Your task to perform on an android device: toggle notification dots Image 0: 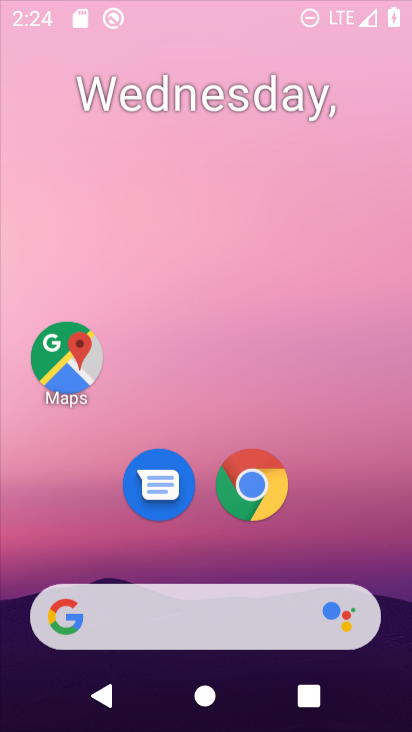
Step 0: drag from (394, 605) to (242, 92)
Your task to perform on an android device: toggle notification dots Image 1: 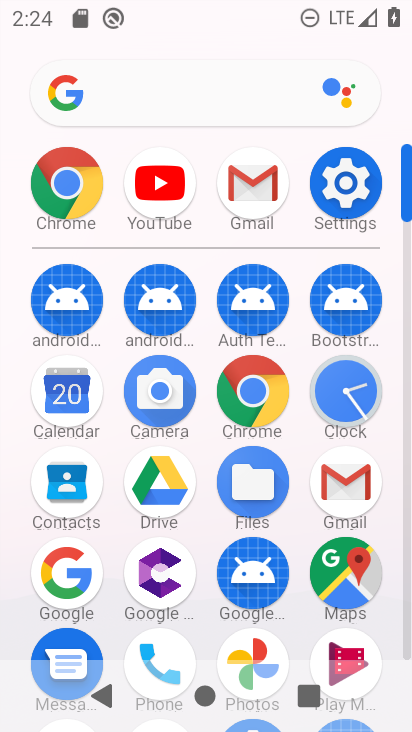
Step 1: click (320, 188)
Your task to perform on an android device: toggle notification dots Image 2: 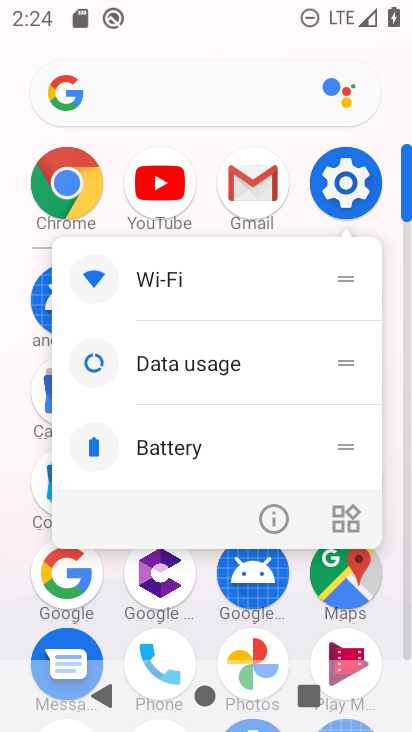
Step 2: click (336, 181)
Your task to perform on an android device: toggle notification dots Image 3: 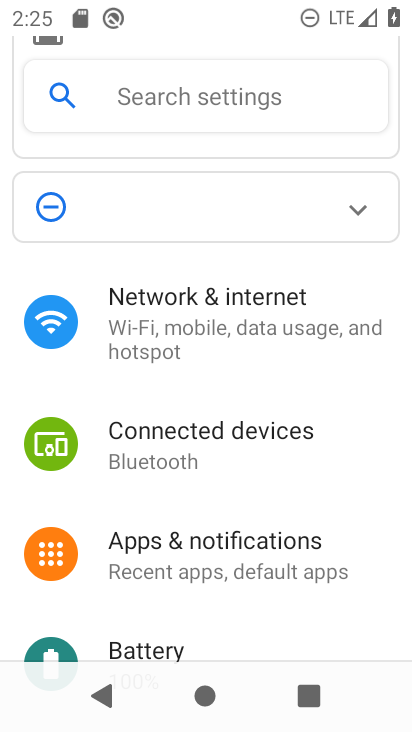
Step 3: click (301, 526)
Your task to perform on an android device: toggle notification dots Image 4: 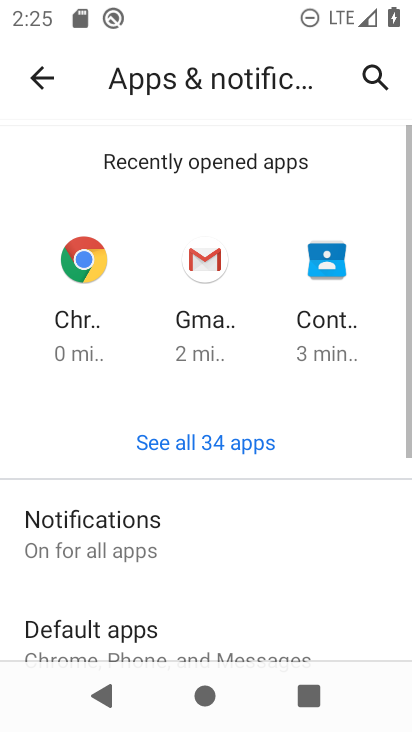
Step 4: click (294, 527)
Your task to perform on an android device: toggle notification dots Image 5: 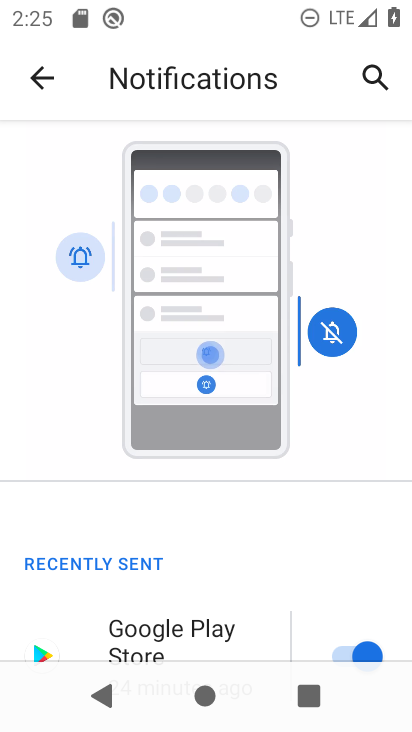
Step 5: drag from (222, 596) to (248, 86)
Your task to perform on an android device: toggle notification dots Image 6: 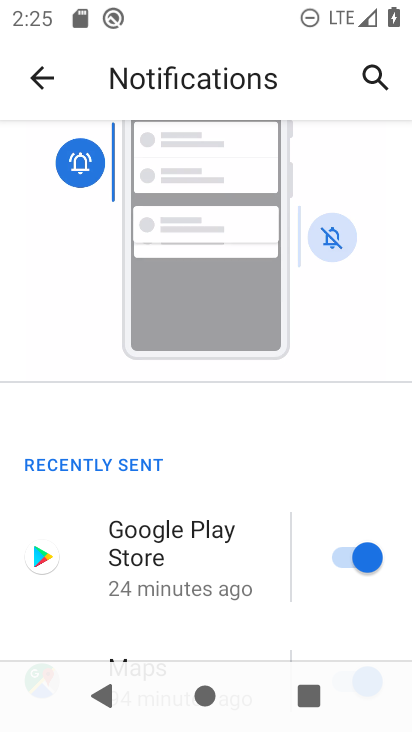
Step 6: drag from (161, 569) to (156, 75)
Your task to perform on an android device: toggle notification dots Image 7: 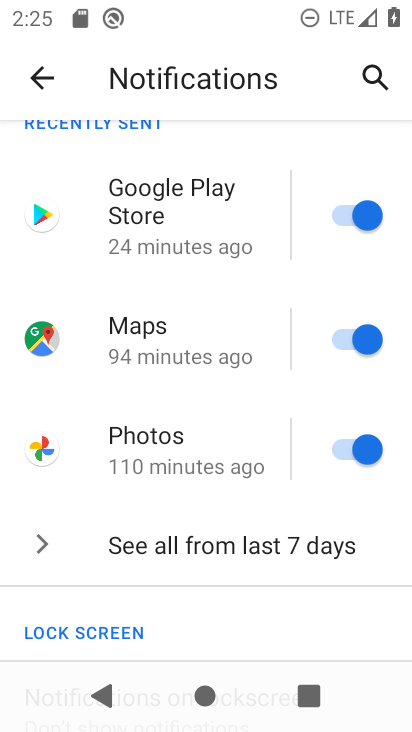
Step 7: drag from (145, 546) to (180, 154)
Your task to perform on an android device: toggle notification dots Image 8: 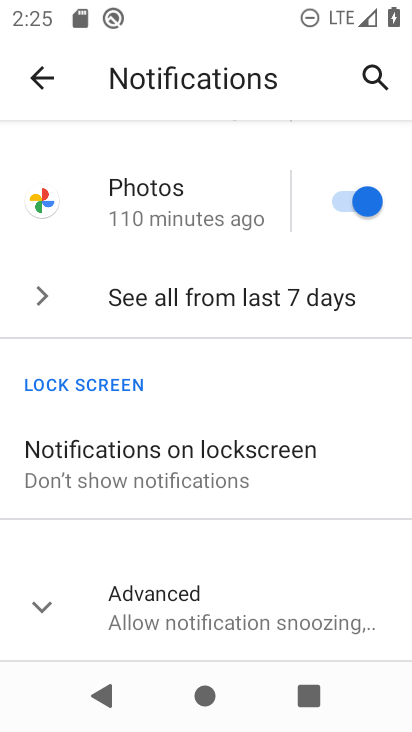
Step 8: click (35, 601)
Your task to perform on an android device: toggle notification dots Image 9: 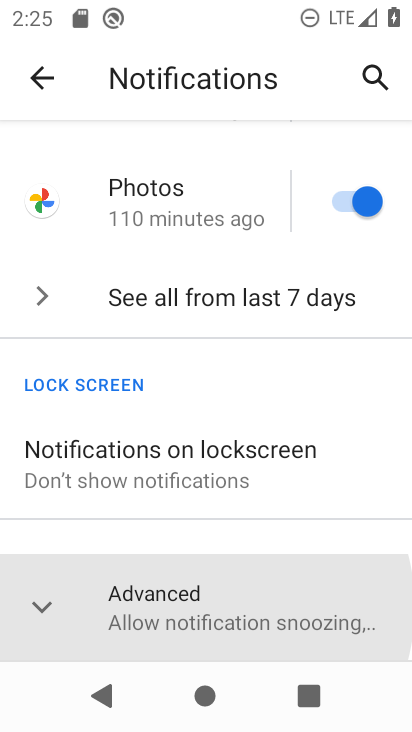
Step 9: drag from (116, 603) to (219, 273)
Your task to perform on an android device: toggle notification dots Image 10: 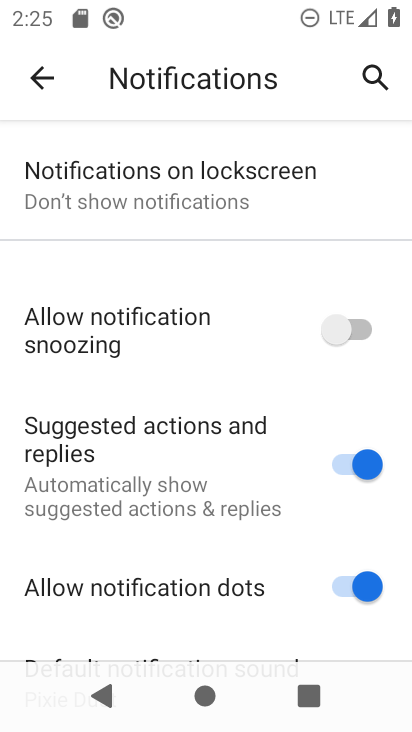
Step 10: click (296, 579)
Your task to perform on an android device: toggle notification dots Image 11: 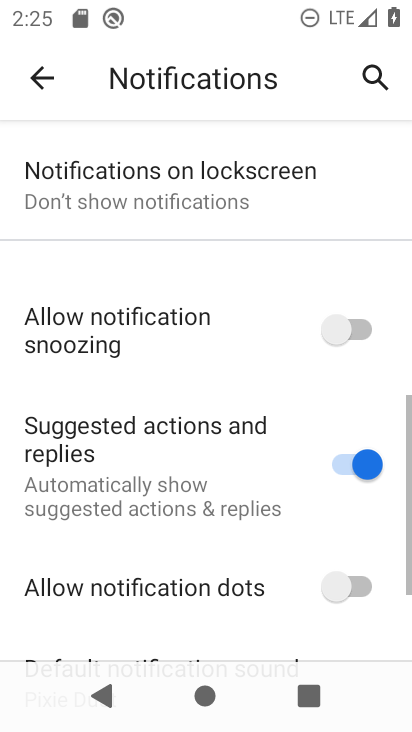
Step 11: task complete